Your task to perform on an android device: toggle translation in the chrome app Image 0: 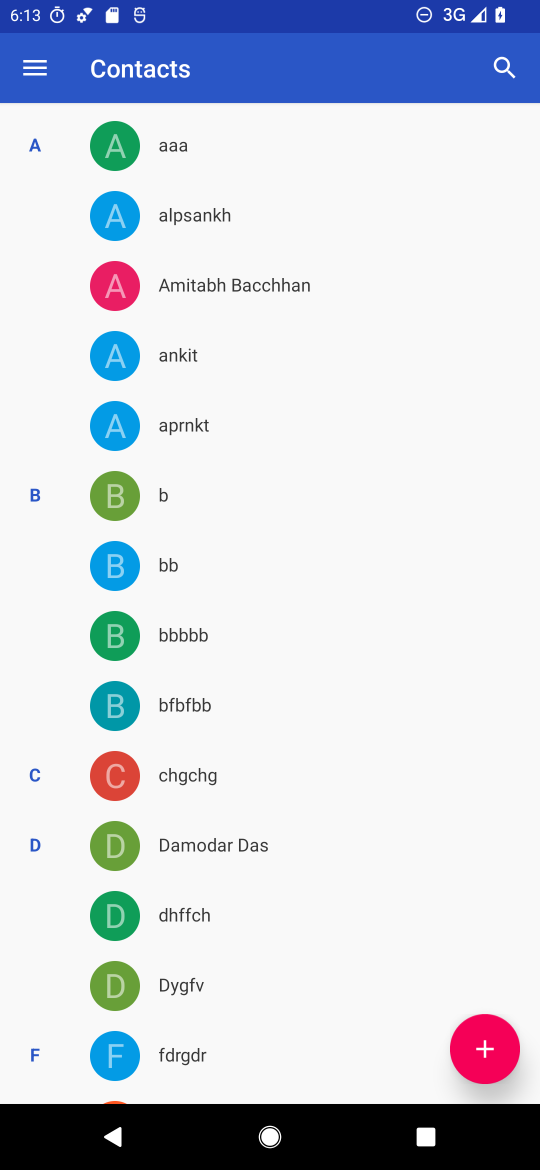
Step 0: press home button
Your task to perform on an android device: toggle translation in the chrome app Image 1: 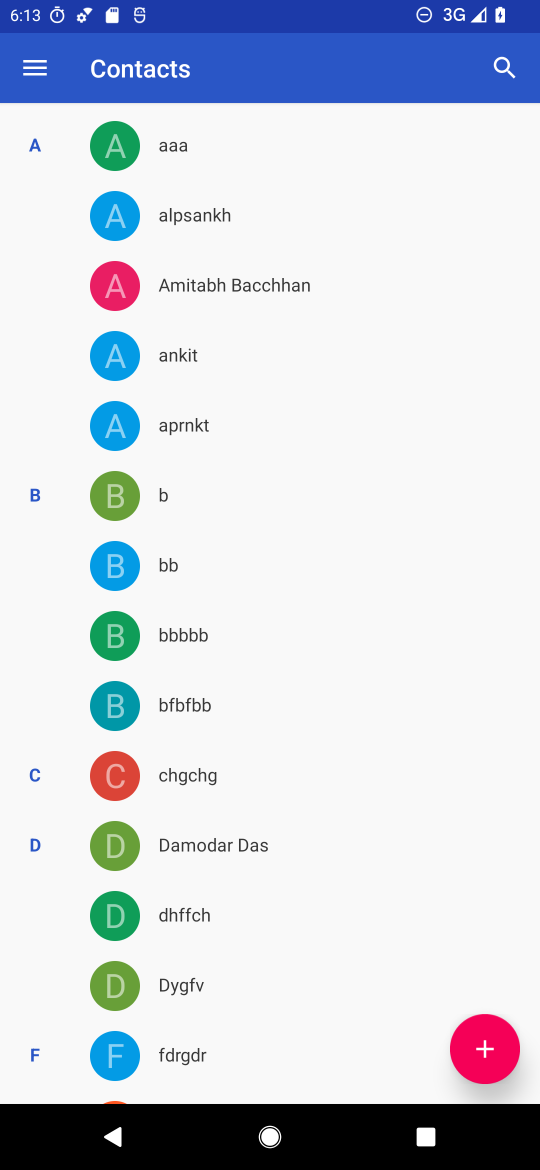
Step 1: press home button
Your task to perform on an android device: toggle translation in the chrome app Image 2: 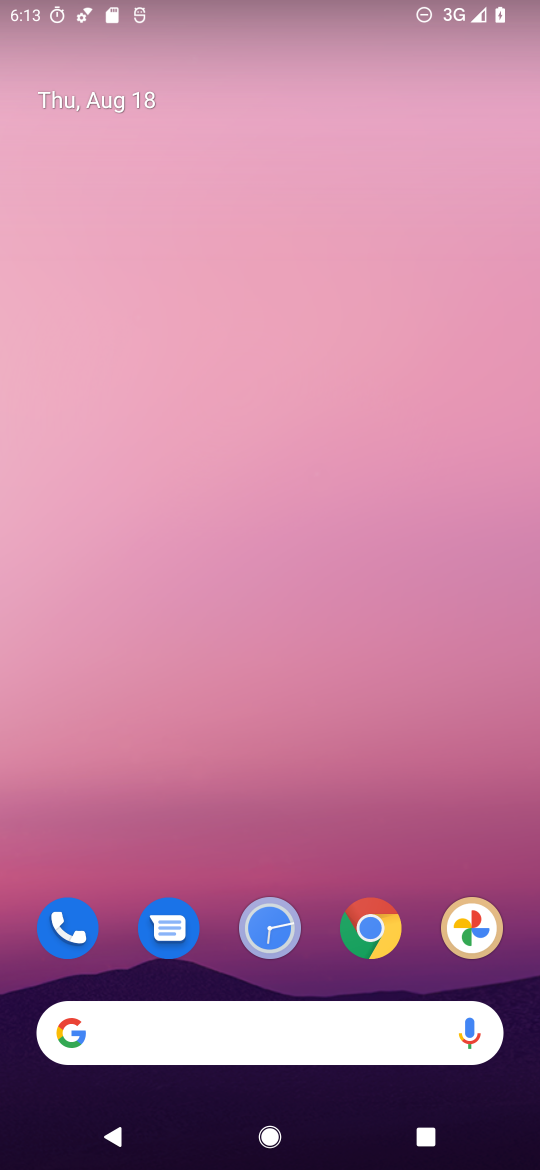
Step 2: drag from (362, 845) to (425, 95)
Your task to perform on an android device: toggle translation in the chrome app Image 3: 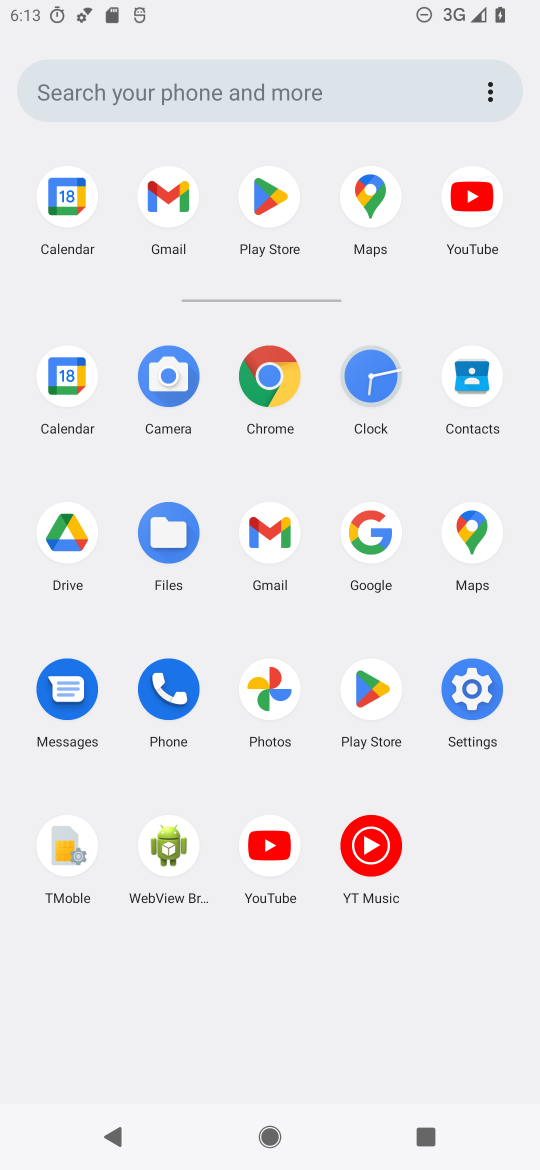
Step 3: click (279, 376)
Your task to perform on an android device: toggle translation in the chrome app Image 4: 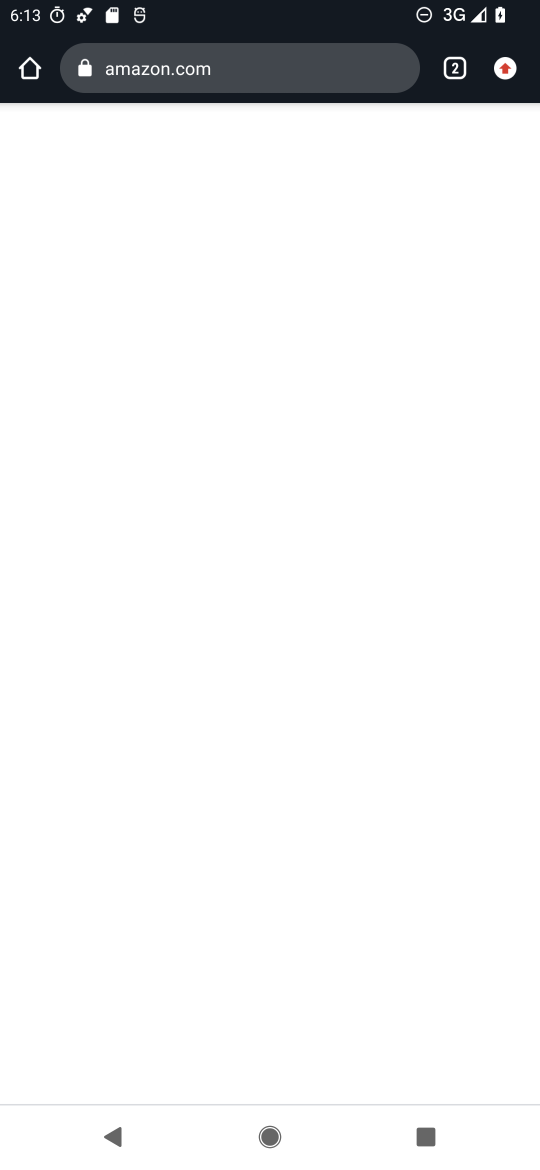
Step 4: drag from (505, 72) to (290, 907)
Your task to perform on an android device: toggle translation in the chrome app Image 5: 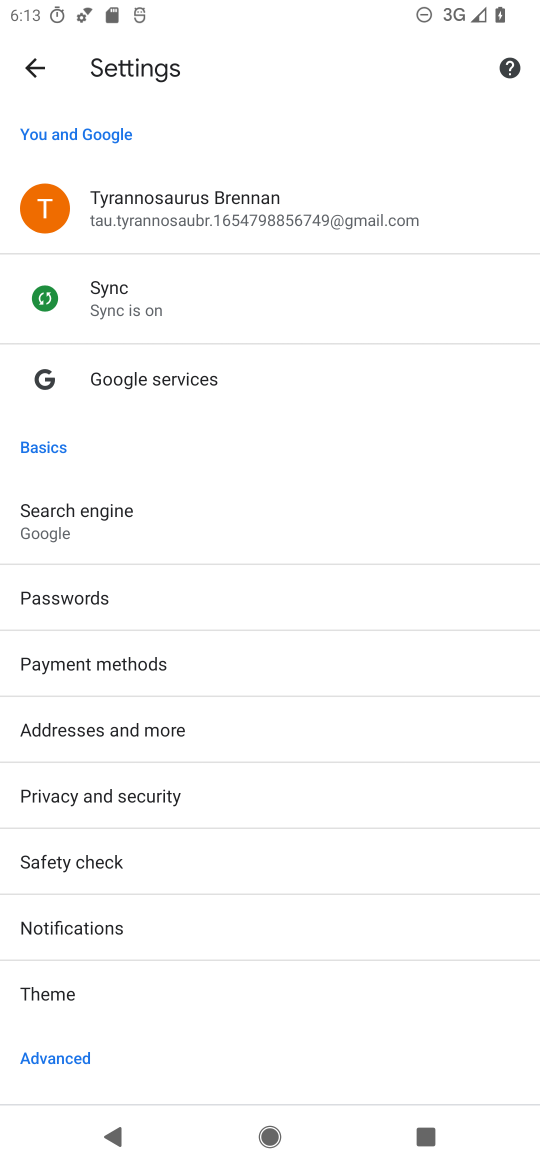
Step 5: drag from (293, 894) to (481, 69)
Your task to perform on an android device: toggle translation in the chrome app Image 6: 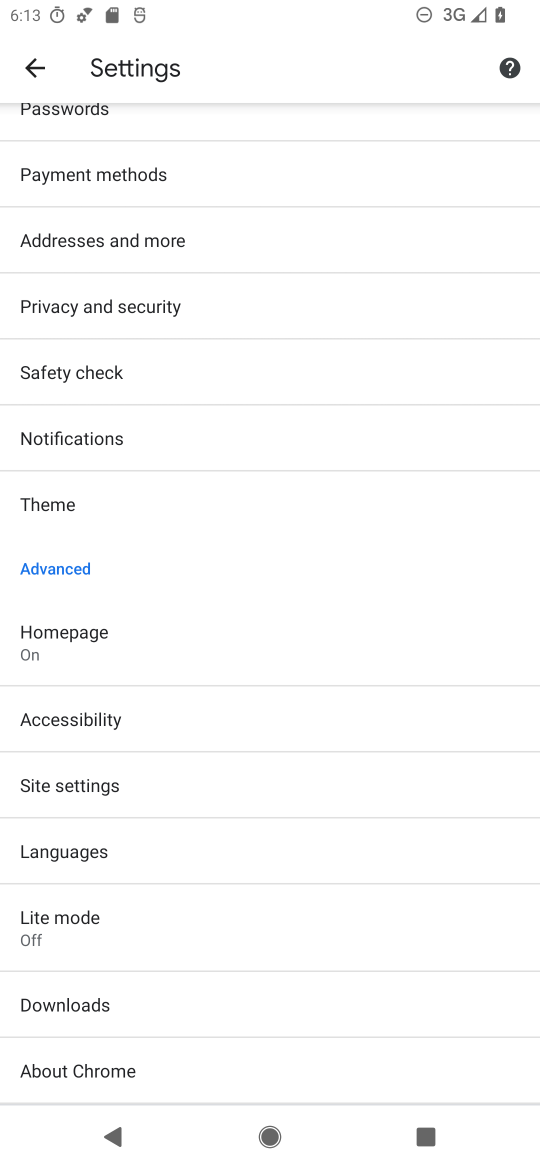
Step 6: drag from (315, 928) to (295, 187)
Your task to perform on an android device: toggle translation in the chrome app Image 7: 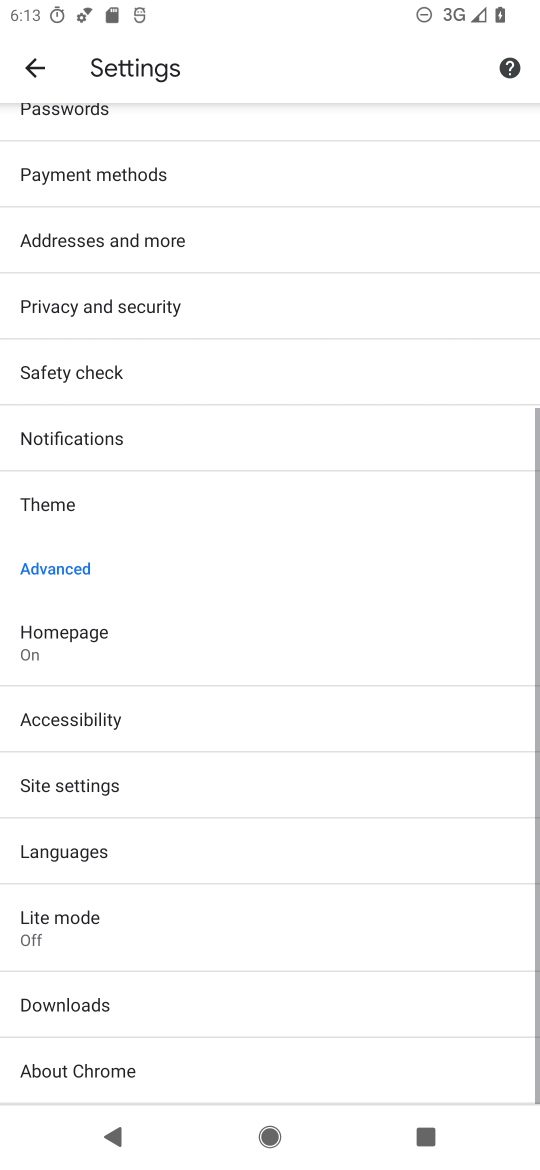
Step 7: drag from (298, 173) to (234, 566)
Your task to perform on an android device: toggle translation in the chrome app Image 8: 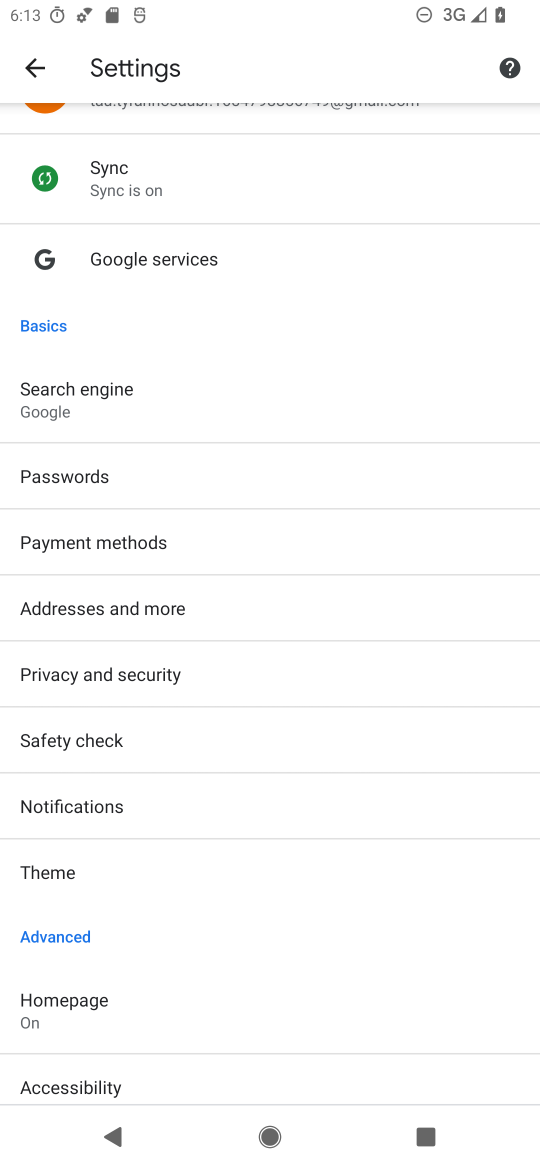
Step 8: drag from (296, 836) to (279, 116)
Your task to perform on an android device: toggle translation in the chrome app Image 9: 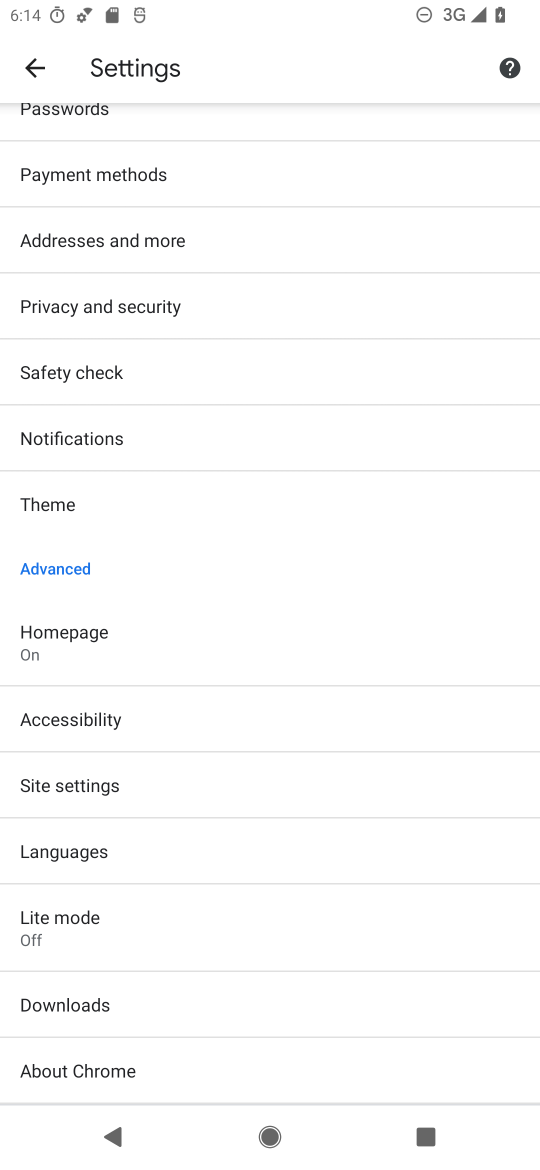
Step 9: click (78, 841)
Your task to perform on an android device: toggle translation in the chrome app Image 10: 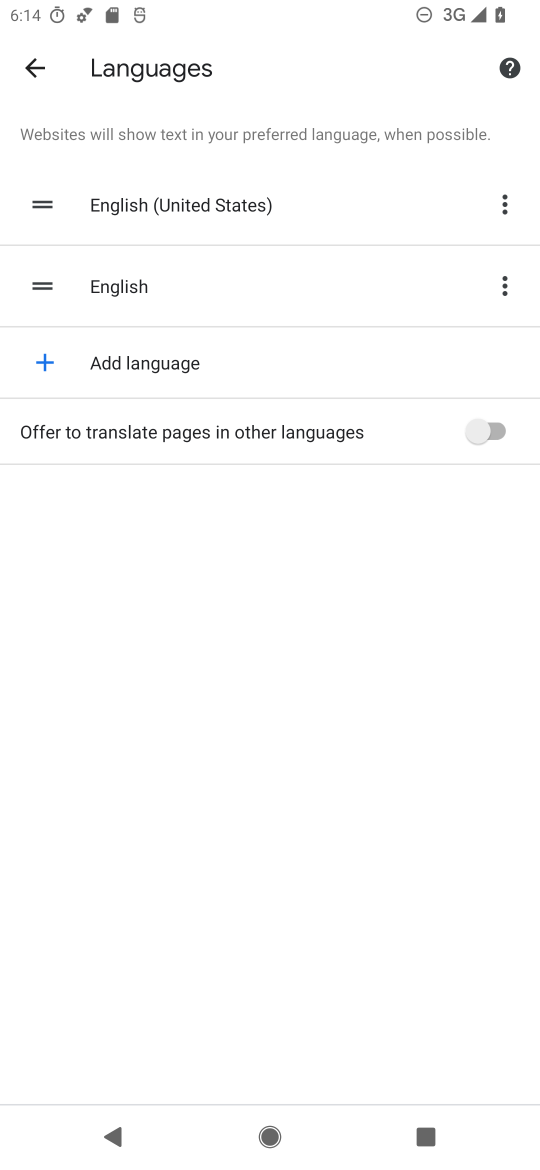
Step 10: click (505, 439)
Your task to perform on an android device: toggle translation in the chrome app Image 11: 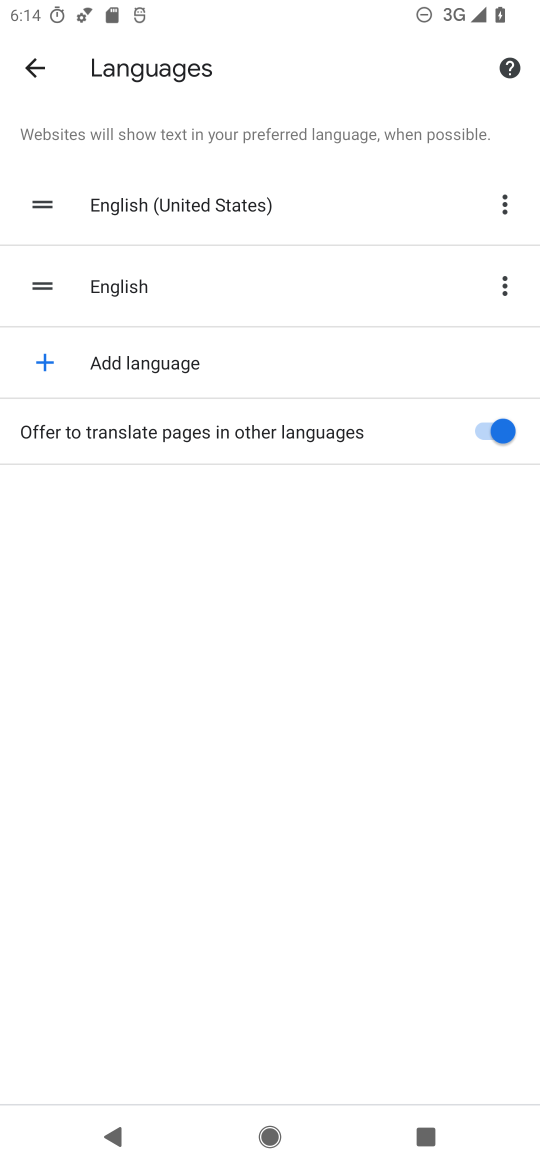
Step 11: task complete